Your task to perform on an android device: Show me the alarms in the clock app Image 0: 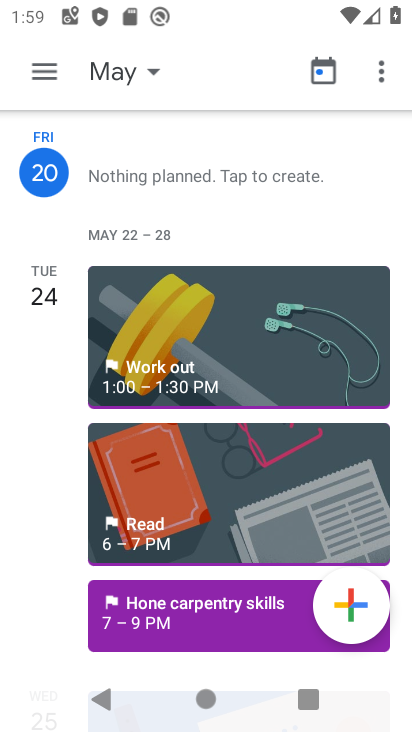
Step 0: press home button
Your task to perform on an android device: Show me the alarms in the clock app Image 1: 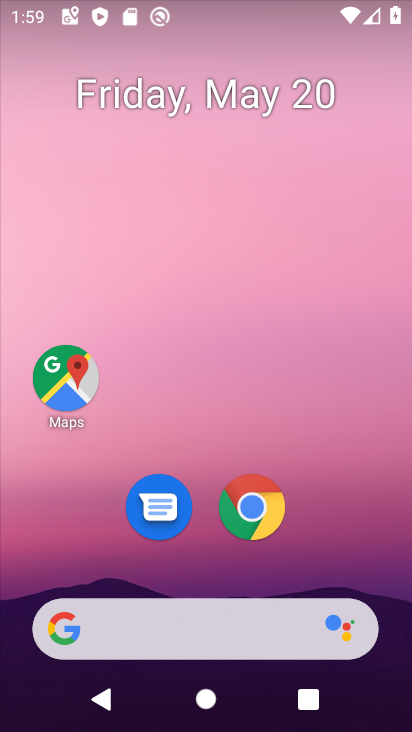
Step 1: drag from (217, 721) to (225, 199)
Your task to perform on an android device: Show me the alarms in the clock app Image 2: 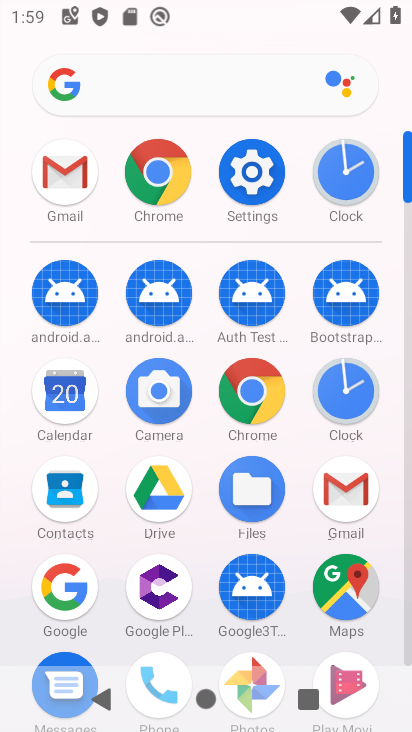
Step 2: click (341, 393)
Your task to perform on an android device: Show me the alarms in the clock app Image 3: 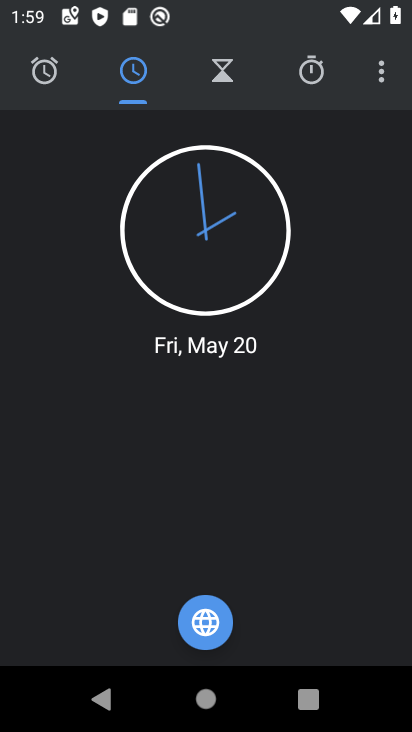
Step 3: click (51, 65)
Your task to perform on an android device: Show me the alarms in the clock app Image 4: 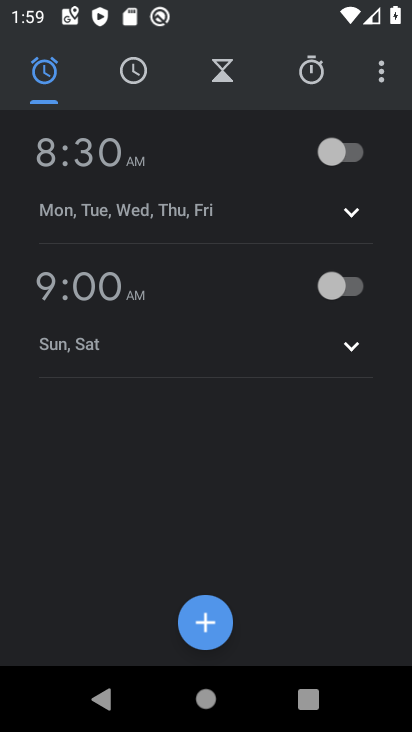
Step 4: task complete